Your task to perform on an android device: delete a single message in the gmail app Image 0: 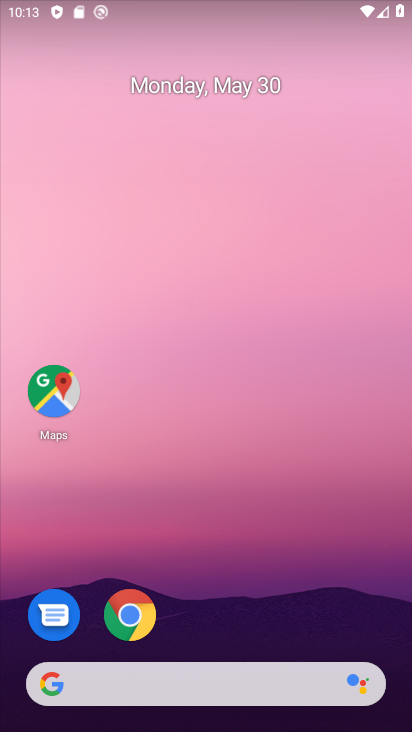
Step 0: drag from (212, 663) to (212, 98)
Your task to perform on an android device: delete a single message in the gmail app Image 1: 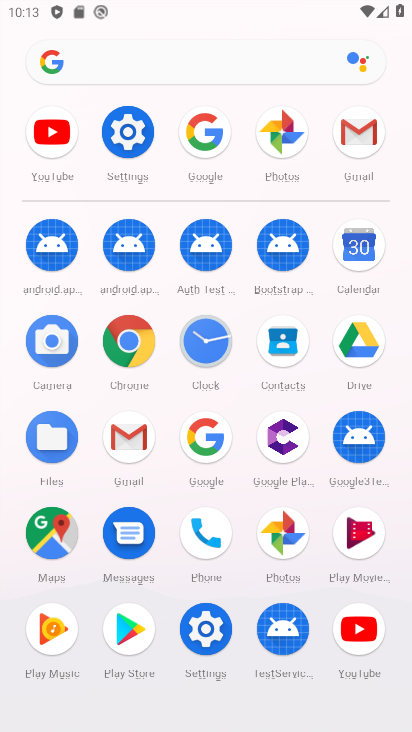
Step 1: click (128, 435)
Your task to perform on an android device: delete a single message in the gmail app Image 2: 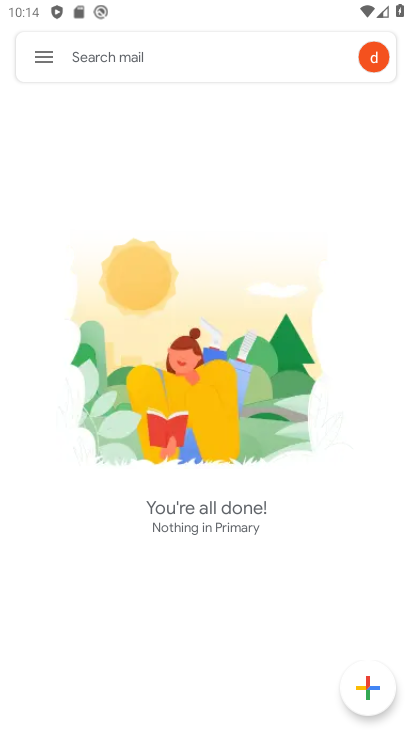
Step 2: task complete